Your task to perform on an android device: toggle translation in the chrome app Image 0: 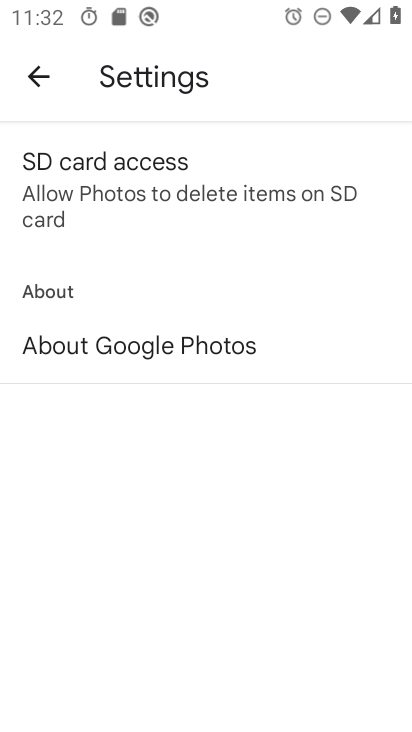
Step 0: press home button
Your task to perform on an android device: toggle translation in the chrome app Image 1: 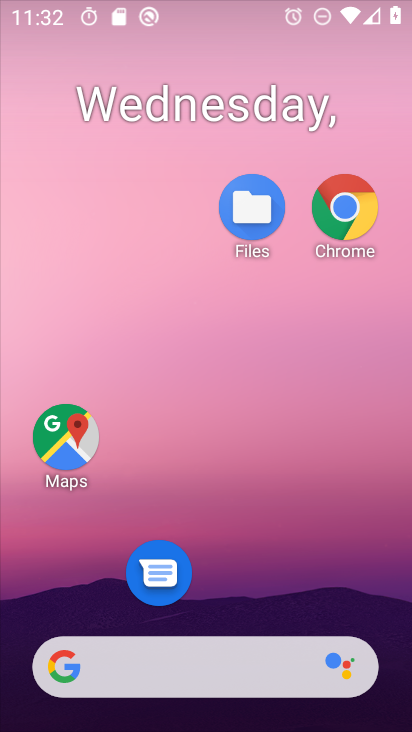
Step 1: drag from (222, 605) to (255, 42)
Your task to perform on an android device: toggle translation in the chrome app Image 2: 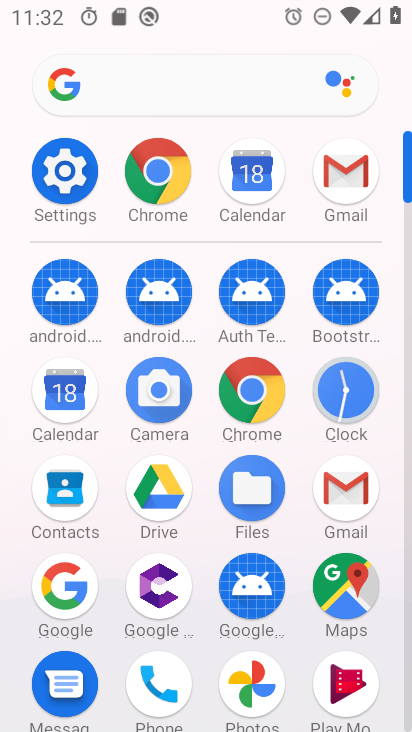
Step 2: click (150, 189)
Your task to perform on an android device: toggle translation in the chrome app Image 3: 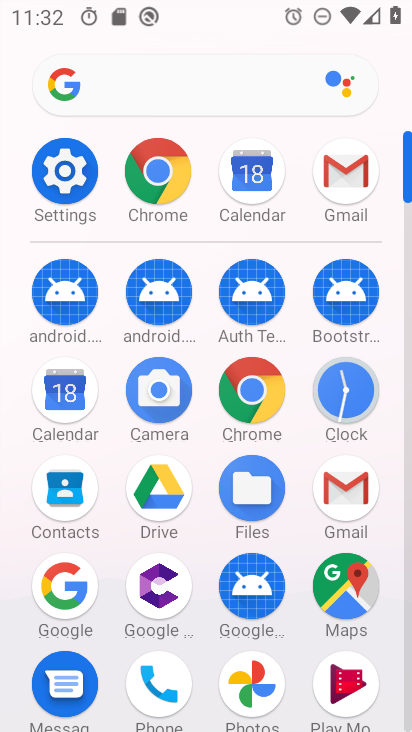
Step 3: click (171, 176)
Your task to perform on an android device: toggle translation in the chrome app Image 4: 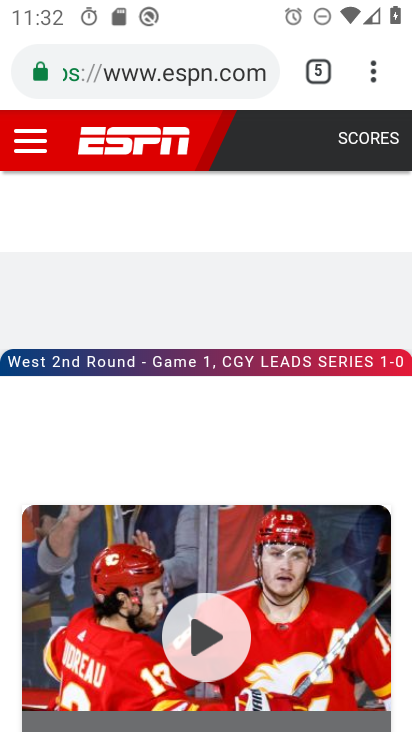
Step 4: click (376, 83)
Your task to perform on an android device: toggle translation in the chrome app Image 5: 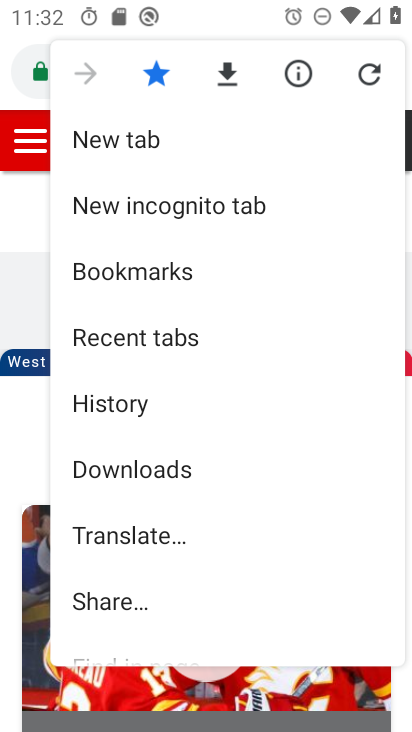
Step 5: click (201, 529)
Your task to perform on an android device: toggle translation in the chrome app Image 6: 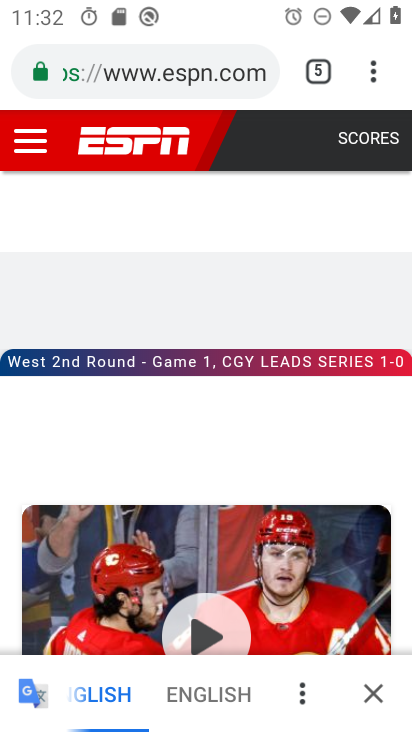
Step 6: click (313, 688)
Your task to perform on an android device: toggle translation in the chrome app Image 7: 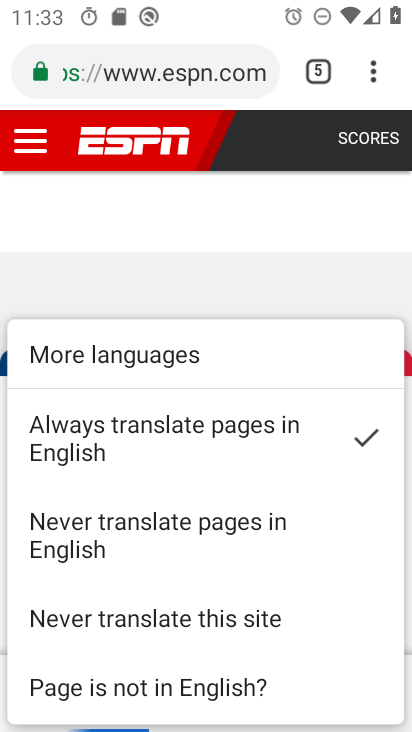
Step 7: click (265, 617)
Your task to perform on an android device: toggle translation in the chrome app Image 8: 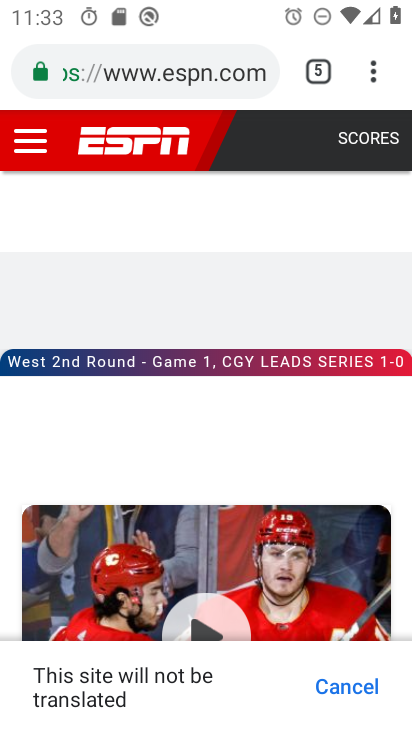
Step 8: task complete